Your task to perform on an android device: turn off data saver in the chrome app Image 0: 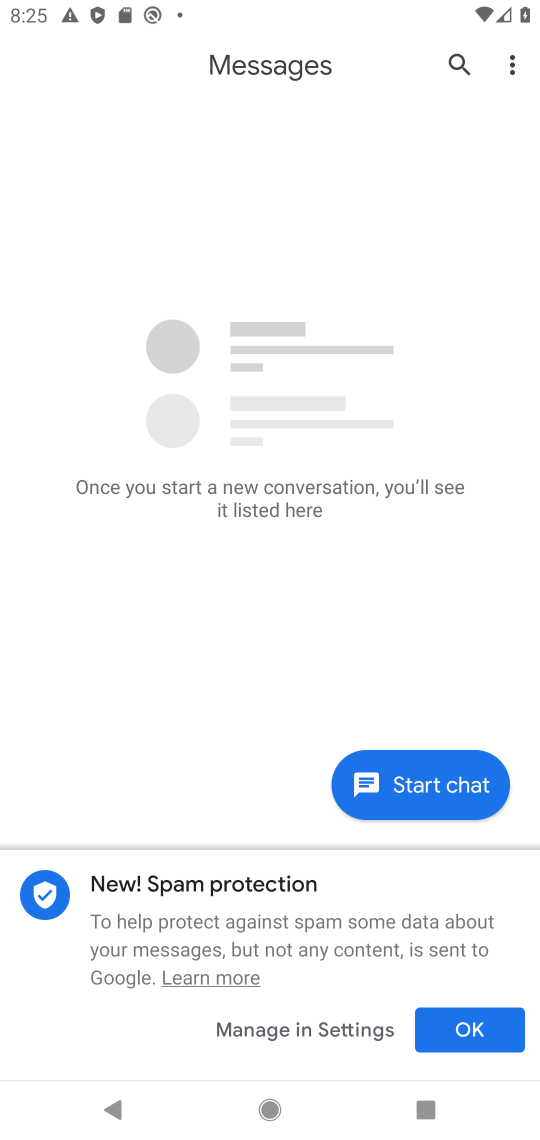
Step 0: drag from (82, 7) to (189, 1057)
Your task to perform on an android device: turn off data saver in the chrome app Image 1: 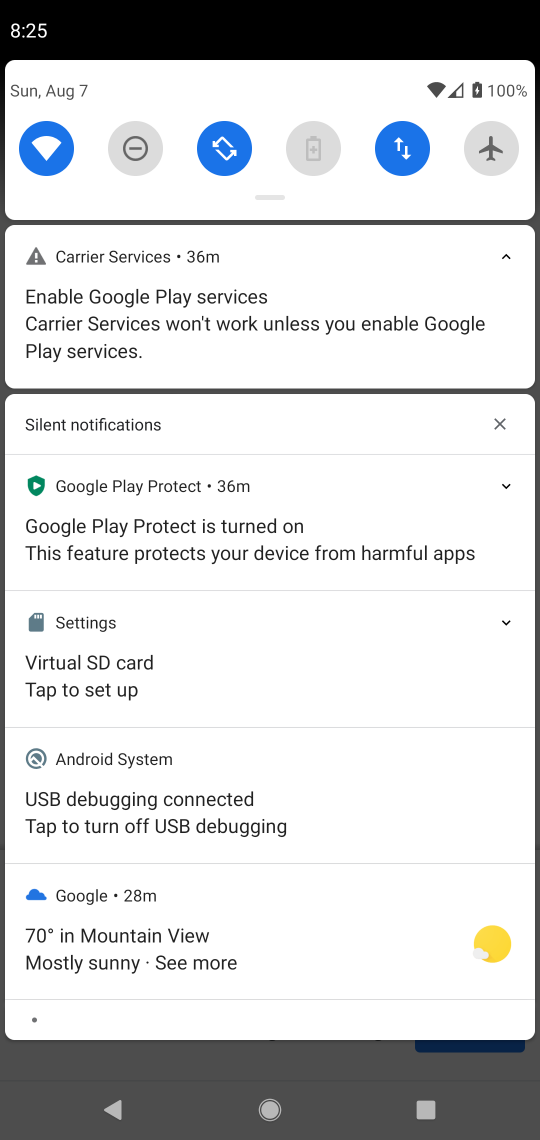
Step 1: click (133, 147)
Your task to perform on an android device: turn off data saver in the chrome app Image 2: 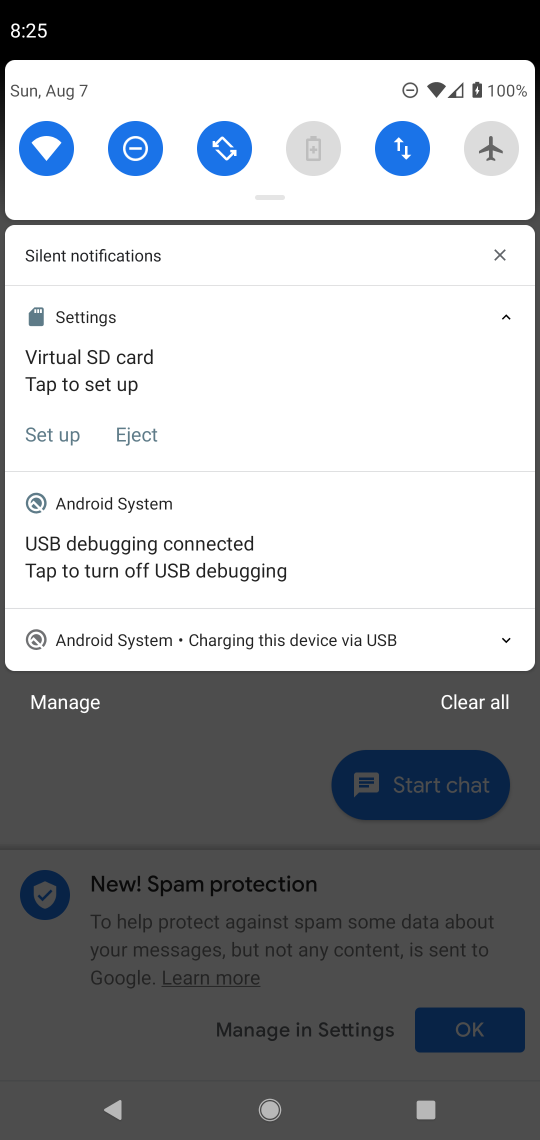
Step 2: click (233, 833)
Your task to perform on an android device: turn off data saver in the chrome app Image 3: 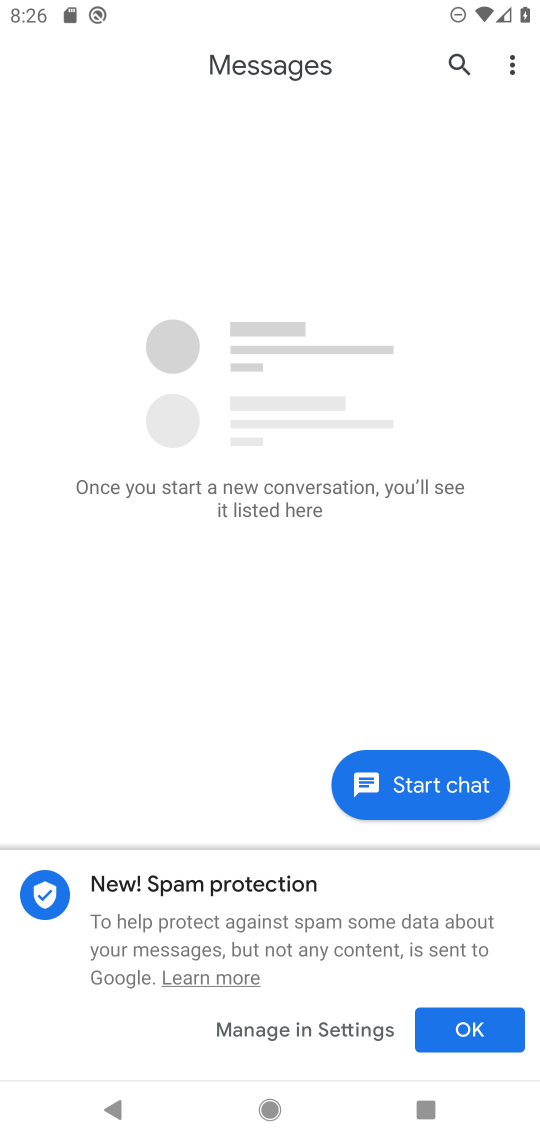
Step 3: click (262, 1110)
Your task to perform on an android device: turn off data saver in the chrome app Image 4: 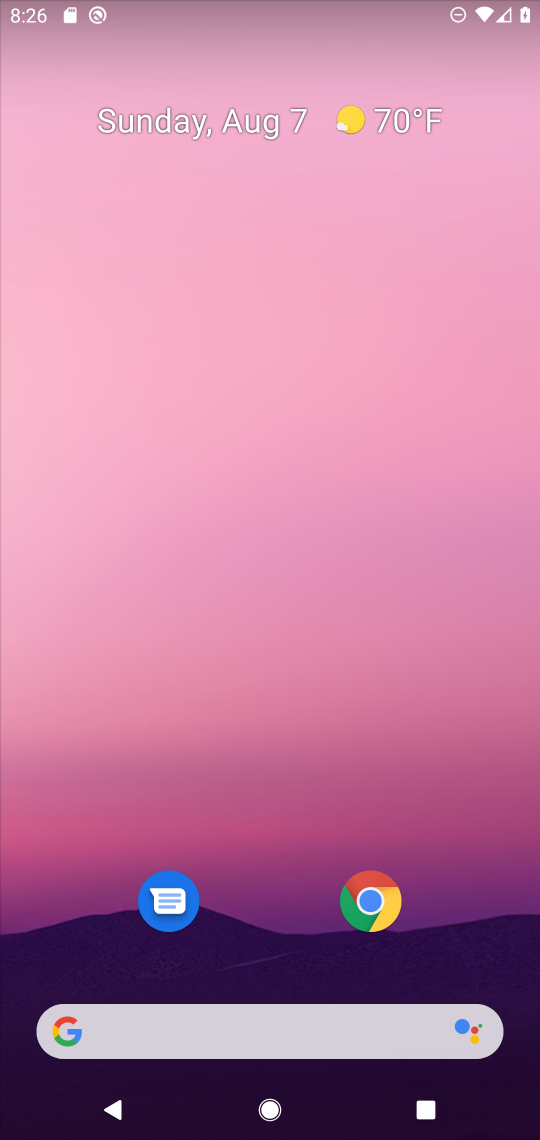
Step 4: click (357, 894)
Your task to perform on an android device: turn off data saver in the chrome app Image 5: 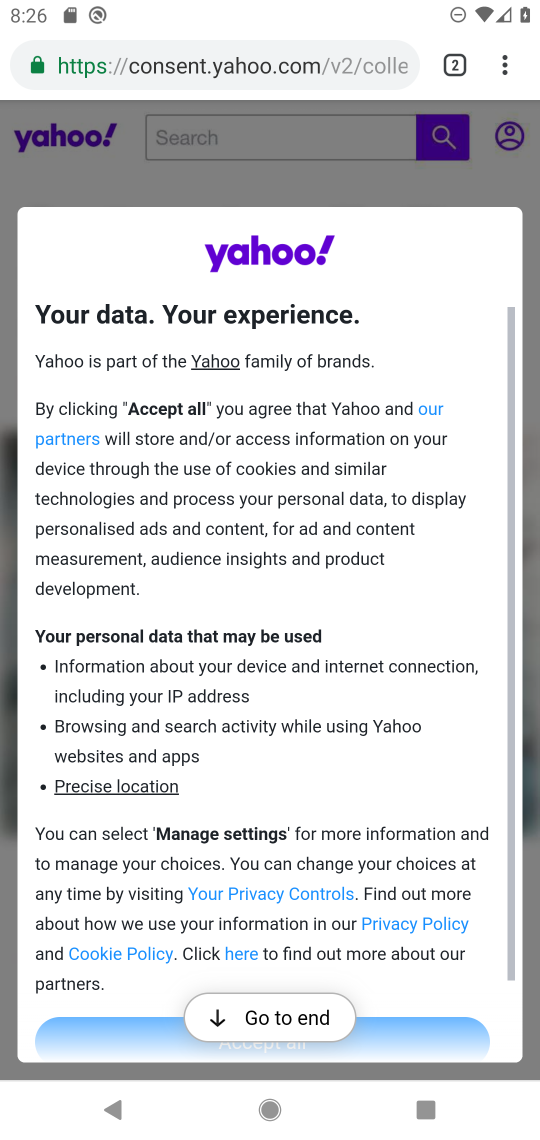
Step 5: click (497, 61)
Your task to perform on an android device: turn off data saver in the chrome app Image 6: 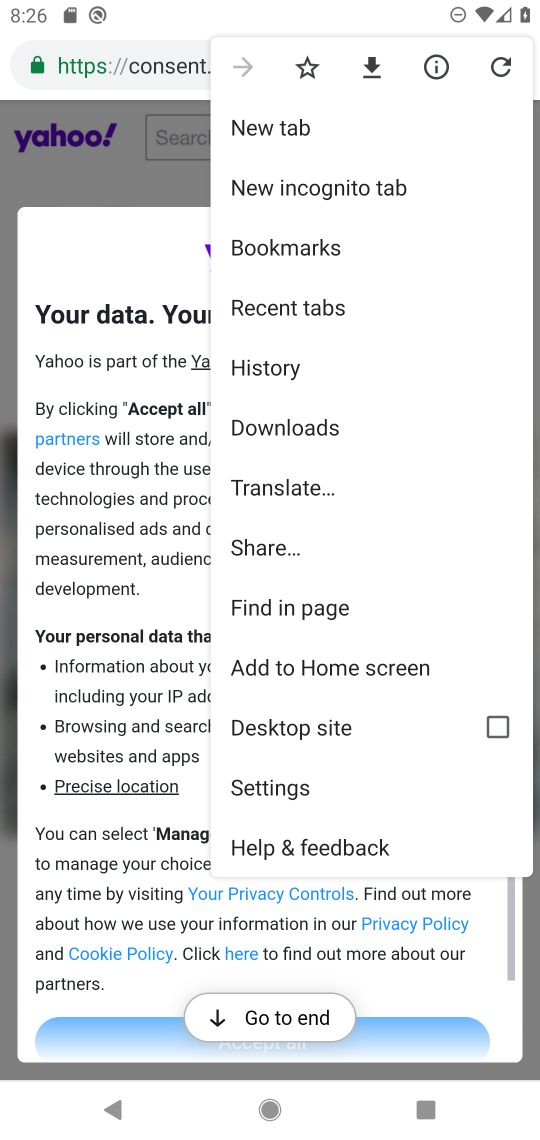
Step 6: click (275, 786)
Your task to perform on an android device: turn off data saver in the chrome app Image 7: 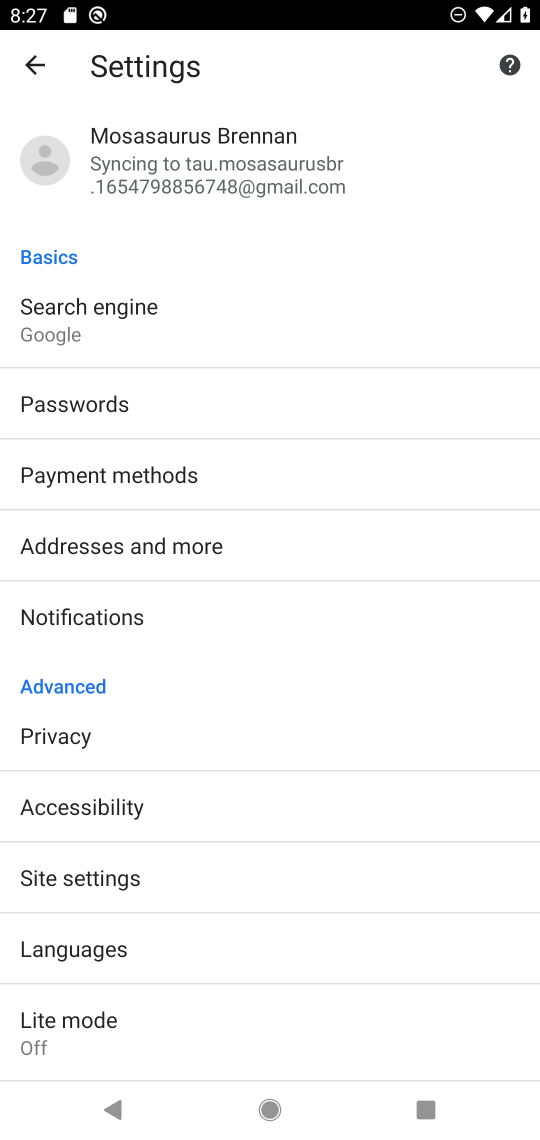
Step 7: task complete